Your task to perform on an android device: Play the last video I watched on Youtube Image 0: 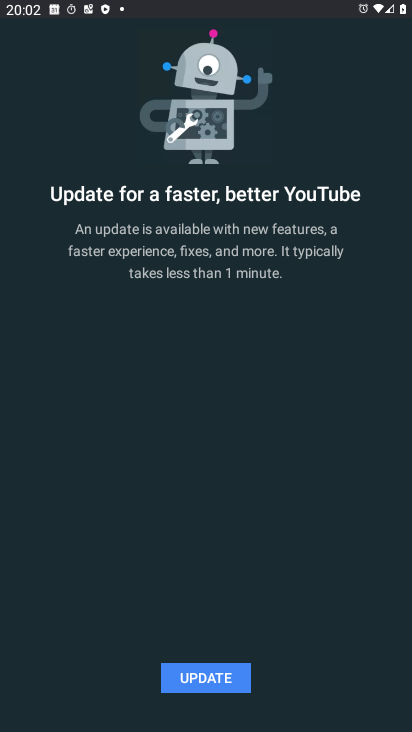
Step 0: drag from (250, 711) to (373, 491)
Your task to perform on an android device: Play the last video I watched on Youtube Image 1: 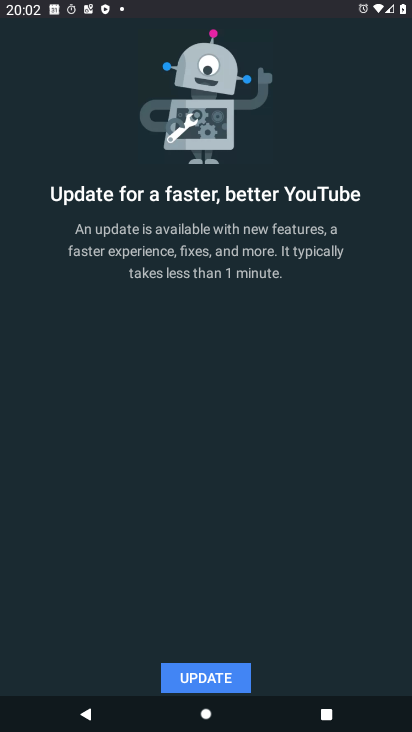
Step 1: click (220, 671)
Your task to perform on an android device: Play the last video I watched on Youtube Image 2: 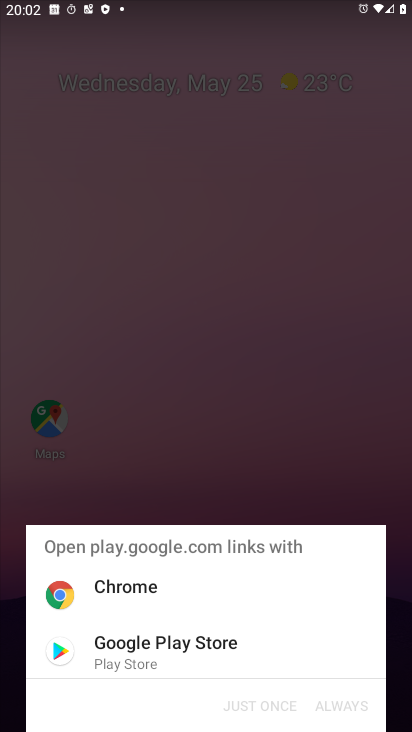
Step 2: click (150, 658)
Your task to perform on an android device: Play the last video I watched on Youtube Image 3: 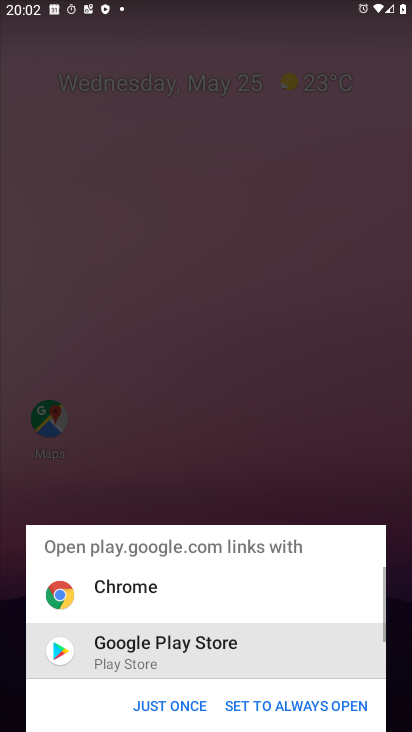
Step 3: click (179, 709)
Your task to perform on an android device: Play the last video I watched on Youtube Image 4: 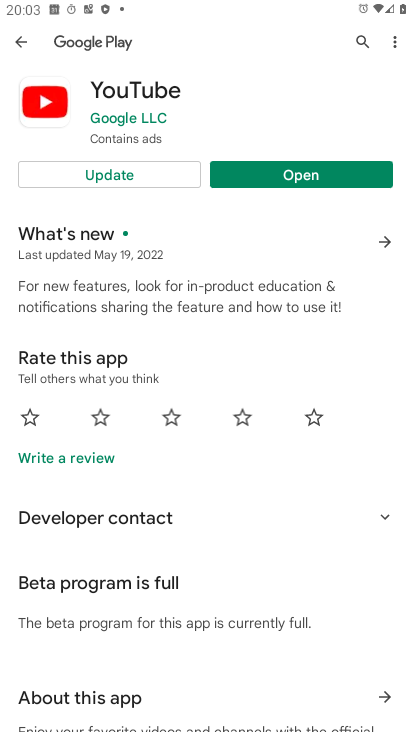
Step 4: click (97, 167)
Your task to perform on an android device: Play the last video I watched on Youtube Image 5: 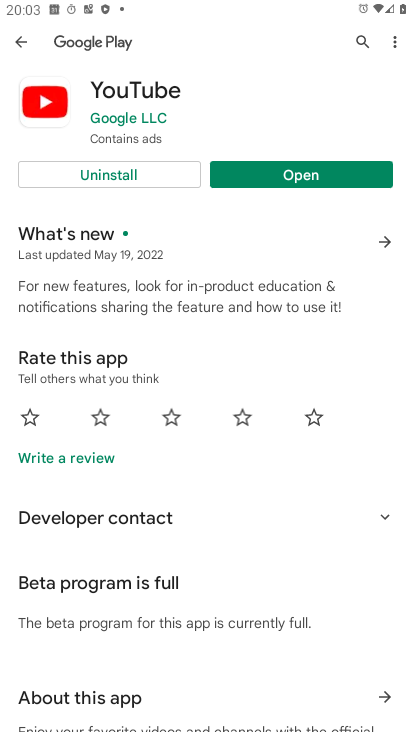
Step 5: click (297, 173)
Your task to perform on an android device: Play the last video I watched on Youtube Image 6: 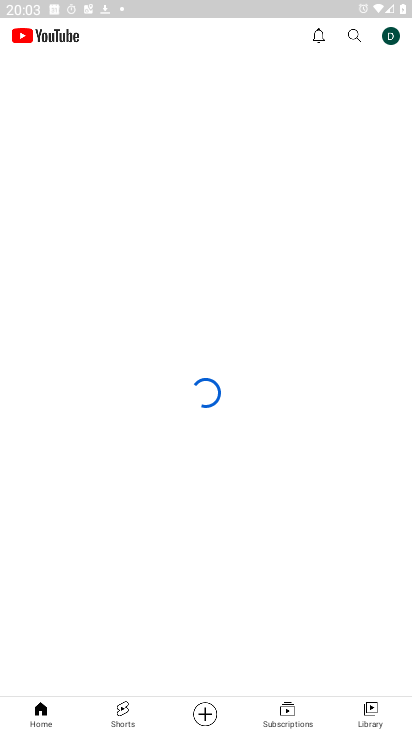
Step 6: click (369, 718)
Your task to perform on an android device: Play the last video I watched on Youtube Image 7: 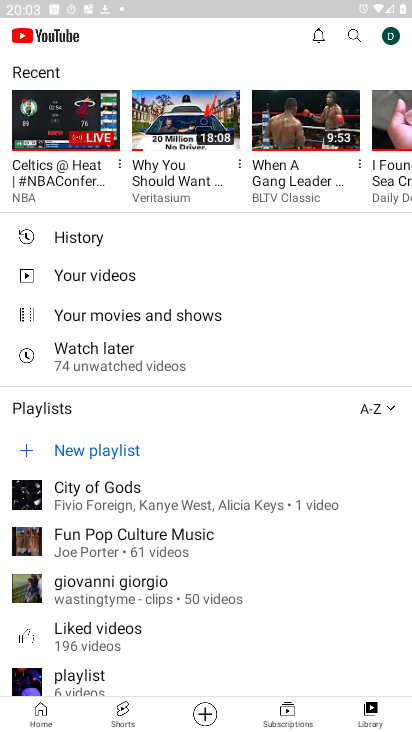
Step 7: click (65, 143)
Your task to perform on an android device: Play the last video I watched on Youtube Image 8: 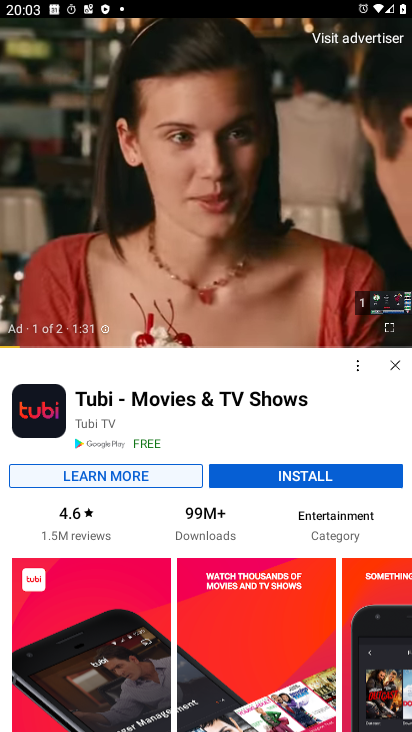
Step 8: click (393, 367)
Your task to perform on an android device: Play the last video I watched on Youtube Image 9: 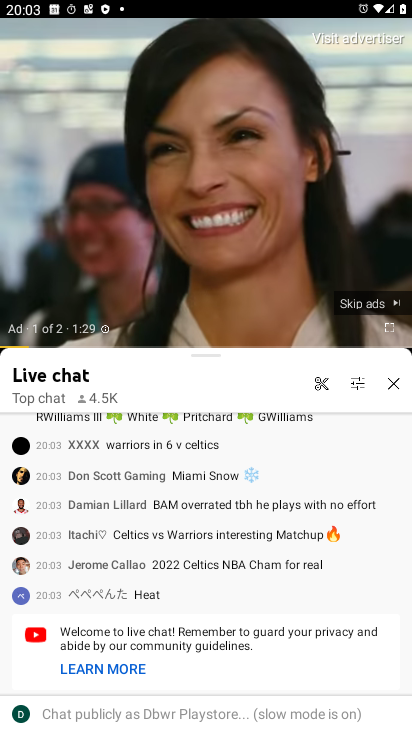
Step 9: click (372, 301)
Your task to perform on an android device: Play the last video I watched on Youtube Image 10: 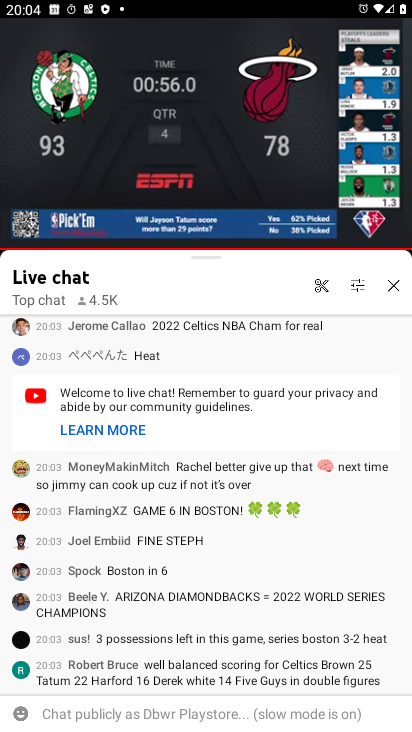
Step 10: task complete